Your task to perform on an android device: check the backup settings in the google photos Image 0: 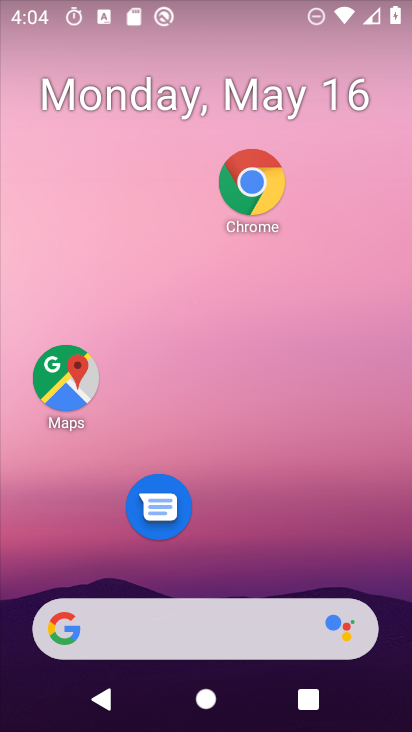
Step 0: drag from (239, 550) to (188, 177)
Your task to perform on an android device: check the backup settings in the google photos Image 1: 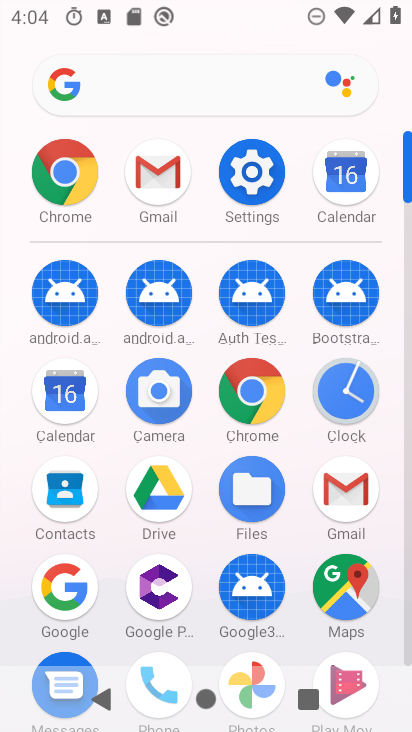
Step 1: drag from (207, 288) to (194, 121)
Your task to perform on an android device: check the backup settings in the google photos Image 2: 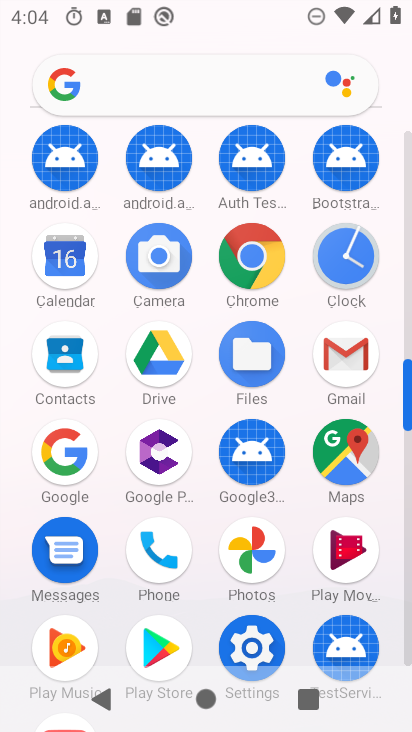
Step 2: click (259, 541)
Your task to perform on an android device: check the backup settings in the google photos Image 3: 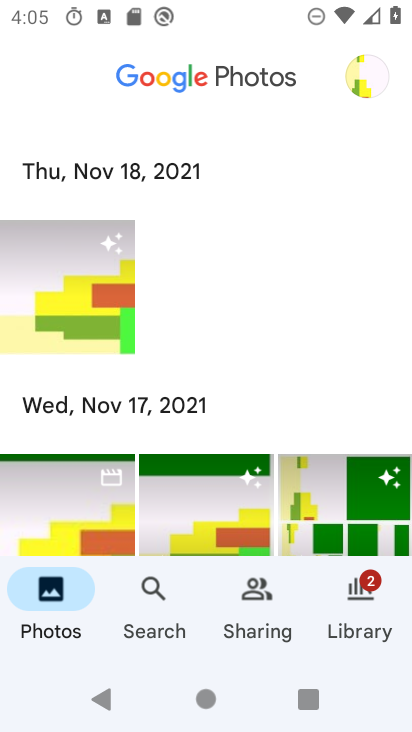
Step 3: click (366, 95)
Your task to perform on an android device: check the backup settings in the google photos Image 4: 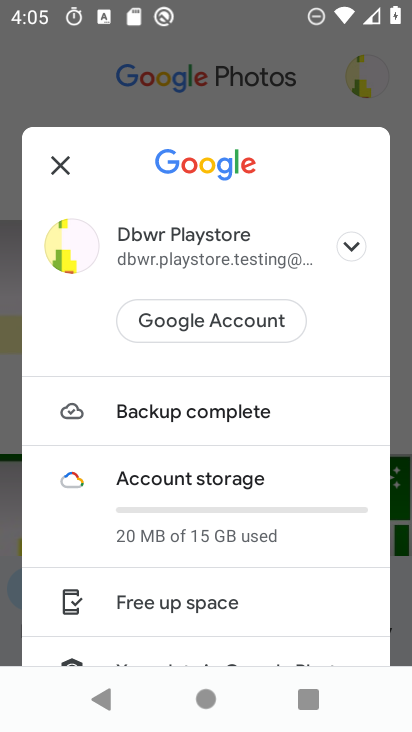
Step 4: drag from (234, 518) to (250, 244)
Your task to perform on an android device: check the backup settings in the google photos Image 5: 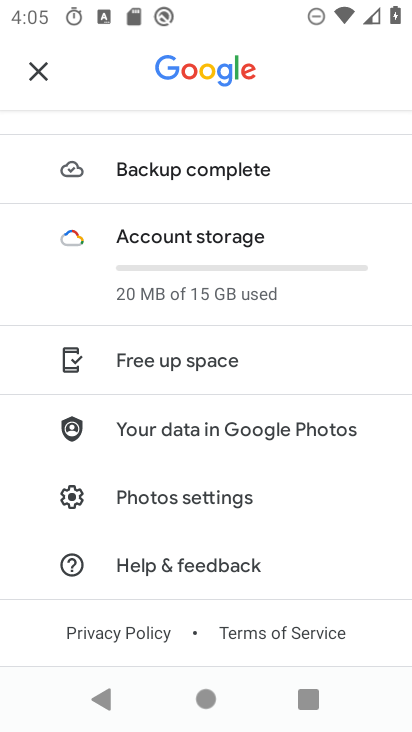
Step 5: drag from (266, 302) to (279, 453)
Your task to perform on an android device: check the backup settings in the google photos Image 6: 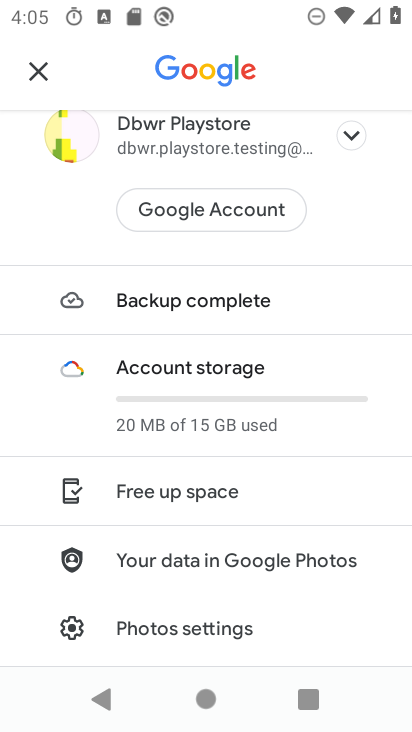
Step 6: click (251, 304)
Your task to perform on an android device: check the backup settings in the google photos Image 7: 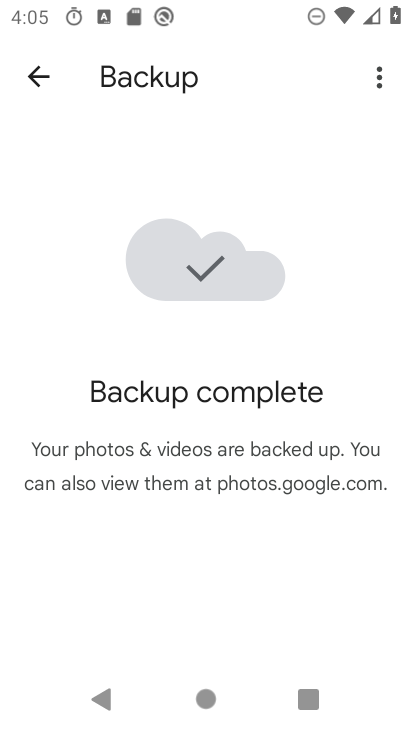
Step 7: click (379, 74)
Your task to perform on an android device: check the backup settings in the google photos Image 8: 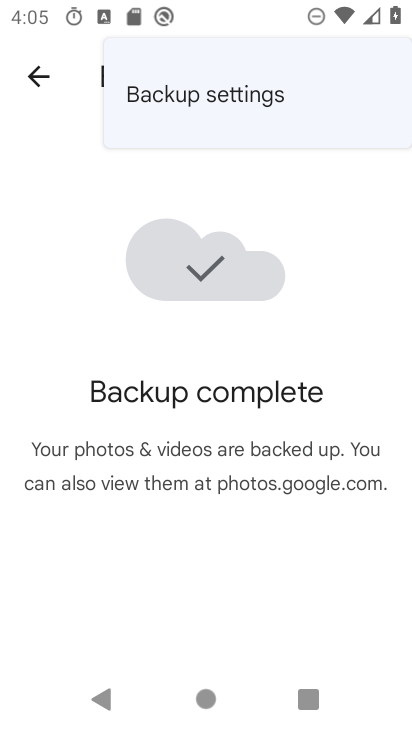
Step 8: click (278, 103)
Your task to perform on an android device: check the backup settings in the google photos Image 9: 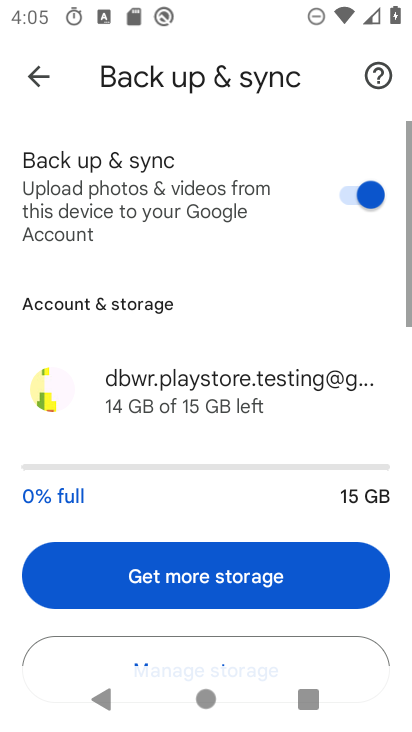
Step 9: task complete